Your task to perform on an android device: star an email in the gmail app Image 0: 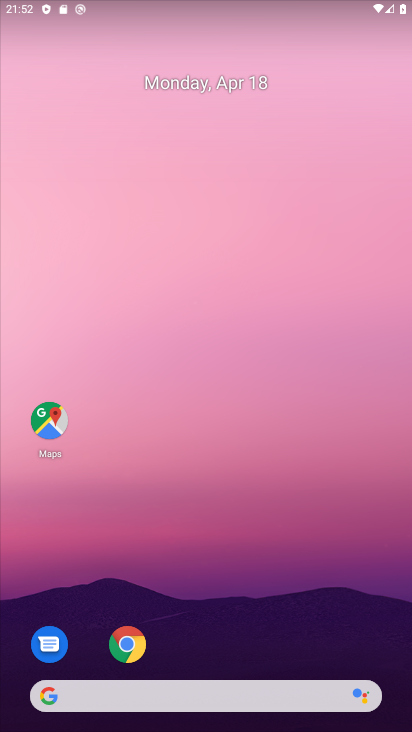
Step 0: click (353, 248)
Your task to perform on an android device: star an email in the gmail app Image 1: 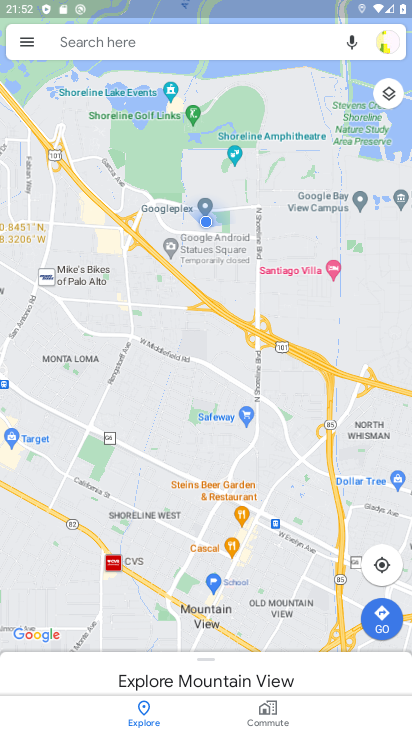
Step 1: press home button
Your task to perform on an android device: star an email in the gmail app Image 2: 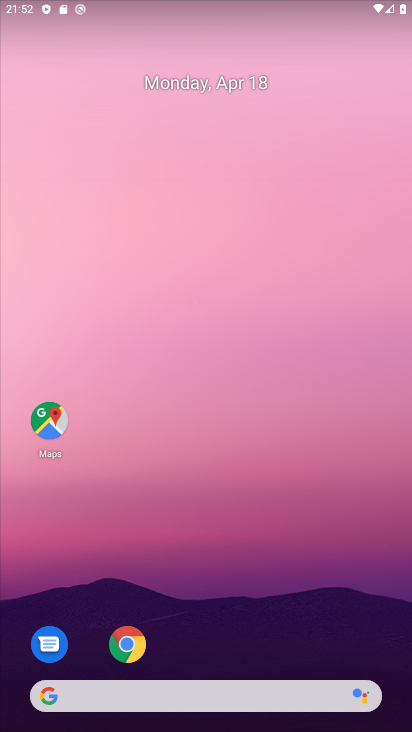
Step 2: drag from (227, 655) to (297, 0)
Your task to perform on an android device: star an email in the gmail app Image 3: 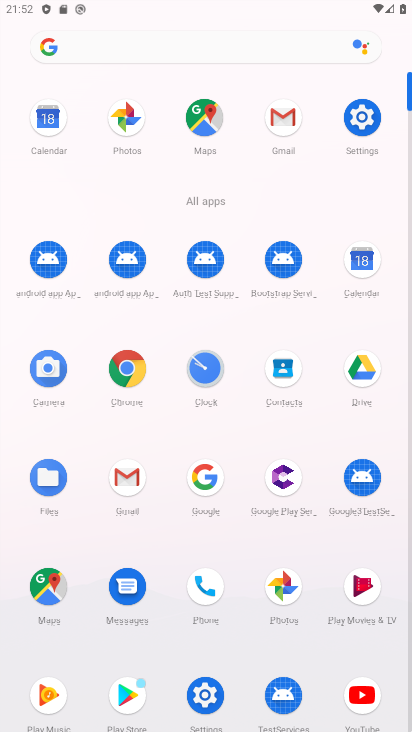
Step 3: click (123, 479)
Your task to perform on an android device: star an email in the gmail app Image 4: 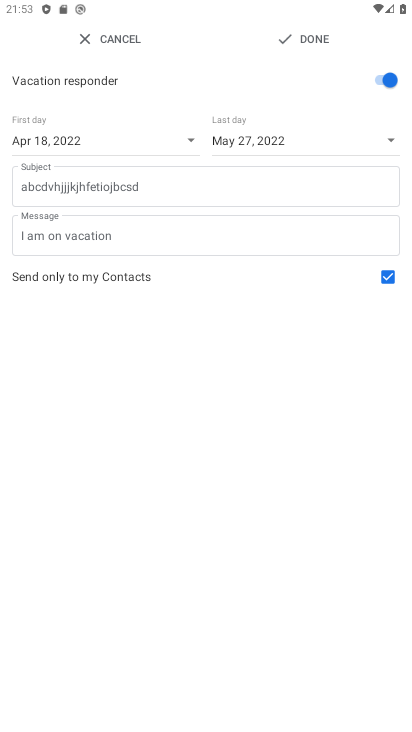
Step 4: click (86, 29)
Your task to perform on an android device: star an email in the gmail app Image 5: 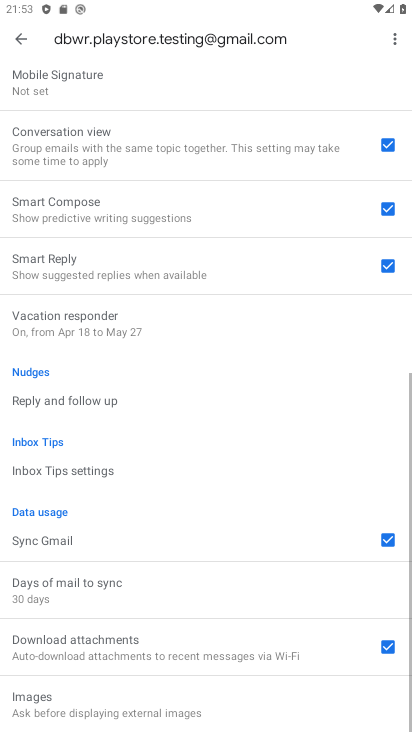
Step 5: click (14, 43)
Your task to perform on an android device: star an email in the gmail app Image 6: 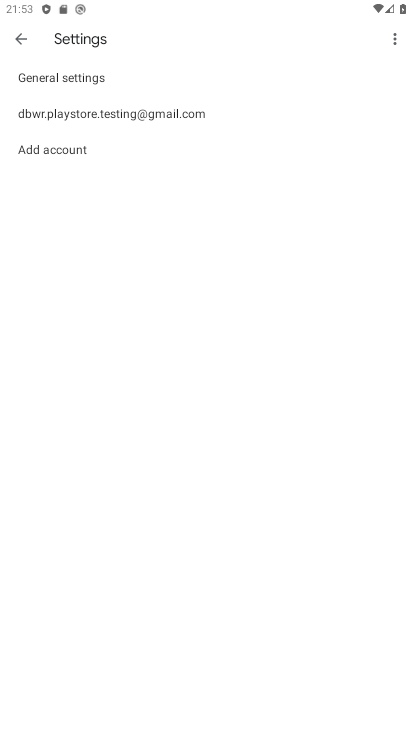
Step 6: click (31, 39)
Your task to perform on an android device: star an email in the gmail app Image 7: 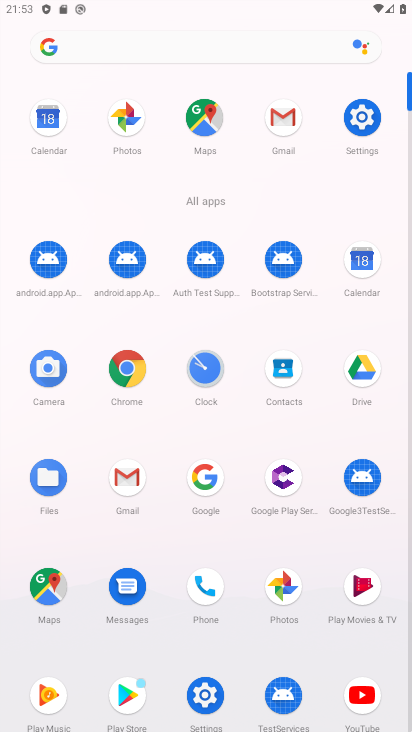
Step 7: click (152, 492)
Your task to perform on an android device: star an email in the gmail app Image 8: 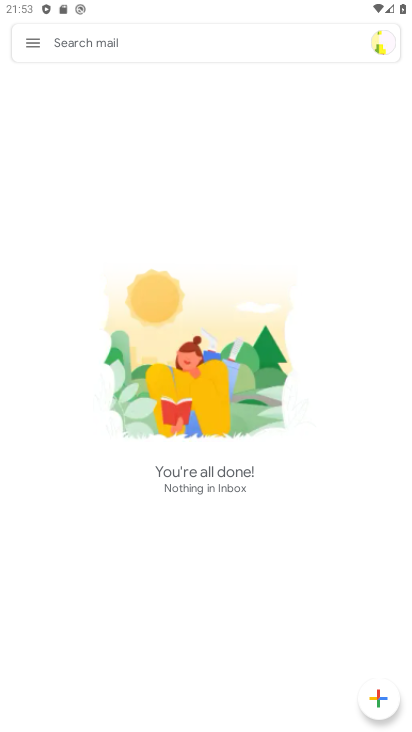
Step 8: task complete